Your task to perform on an android device: Go to calendar. Show me events next week Image 0: 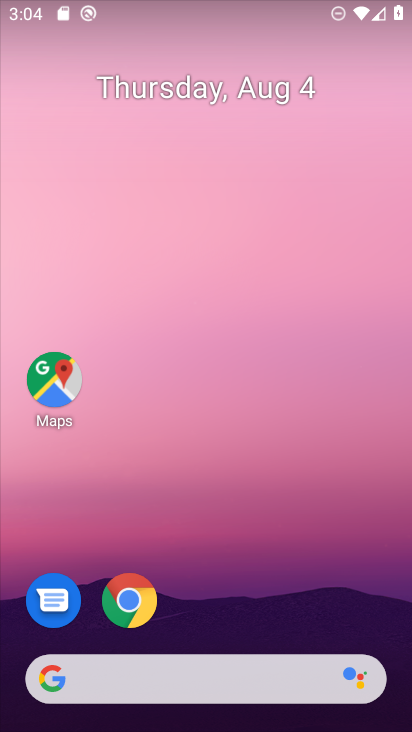
Step 0: drag from (128, 680) to (256, 107)
Your task to perform on an android device: Go to calendar. Show me events next week Image 1: 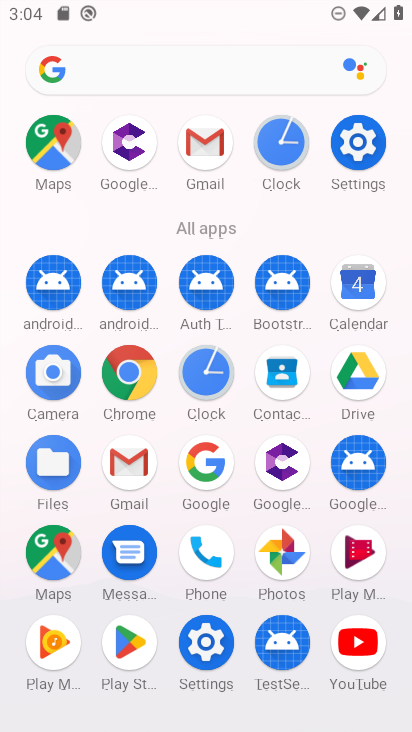
Step 1: click (352, 289)
Your task to perform on an android device: Go to calendar. Show me events next week Image 2: 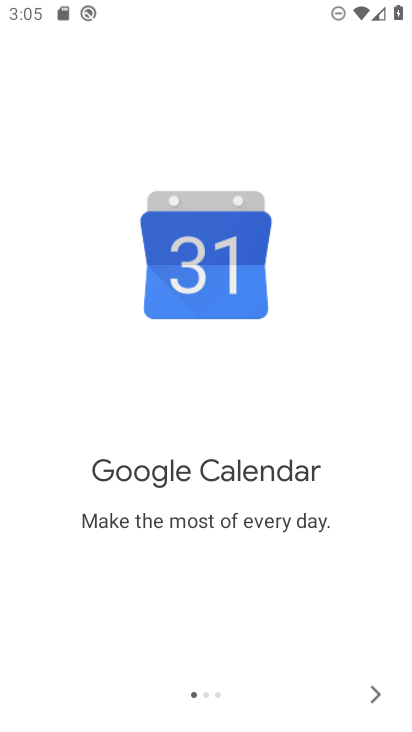
Step 2: click (375, 684)
Your task to perform on an android device: Go to calendar. Show me events next week Image 3: 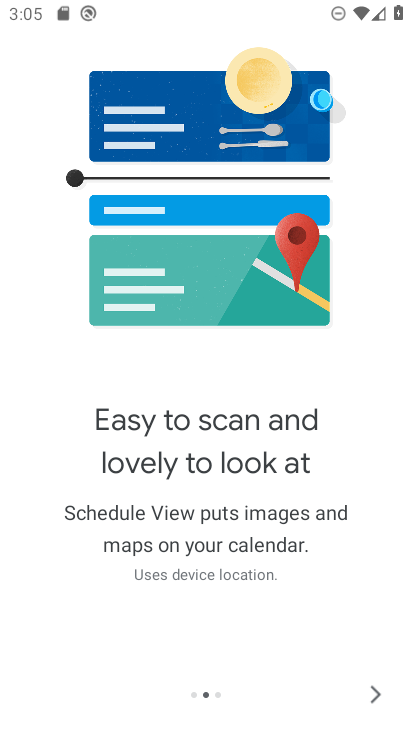
Step 3: click (375, 687)
Your task to perform on an android device: Go to calendar. Show me events next week Image 4: 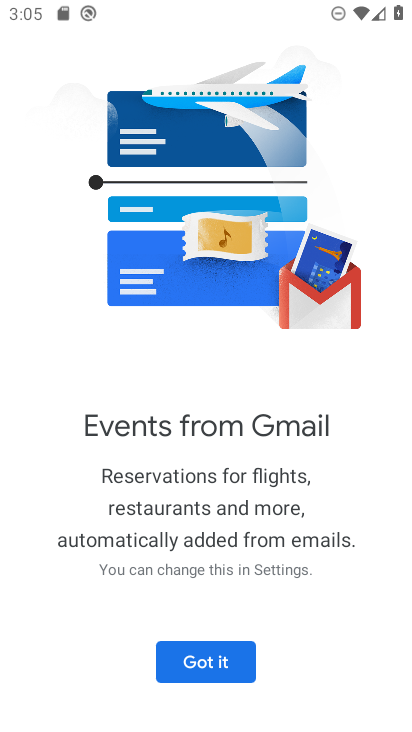
Step 4: click (226, 662)
Your task to perform on an android device: Go to calendar. Show me events next week Image 5: 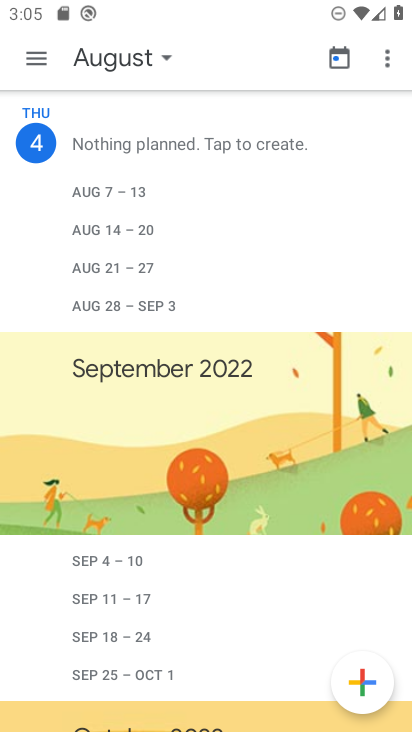
Step 5: click (99, 62)
Your task to perform on an android device: Go to calendar. Show me events next week Image 6: 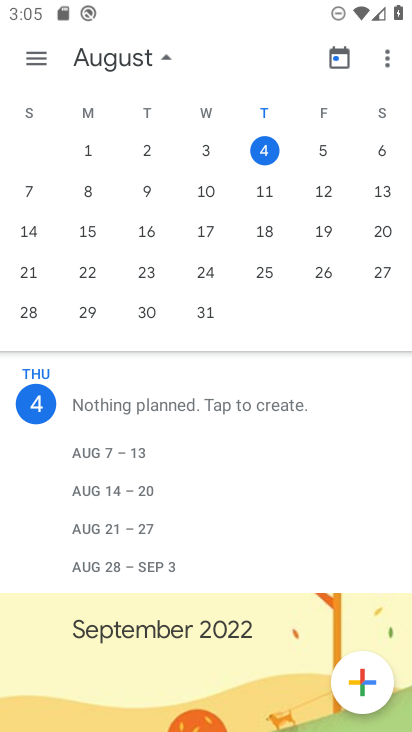
Step 6: click (28, 194)
Your task to perform on an android device: Go to calendar. Show me events next week Image 7: 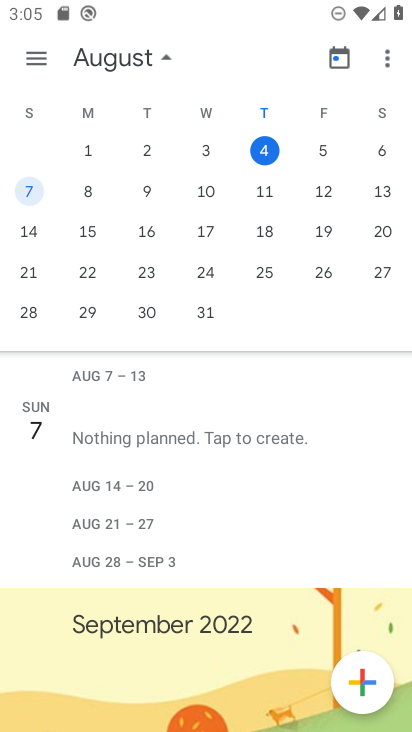
Step 7: click (44, 60)
Your task to perform on an android device: Go to calendar. Show me events next week Image 8: 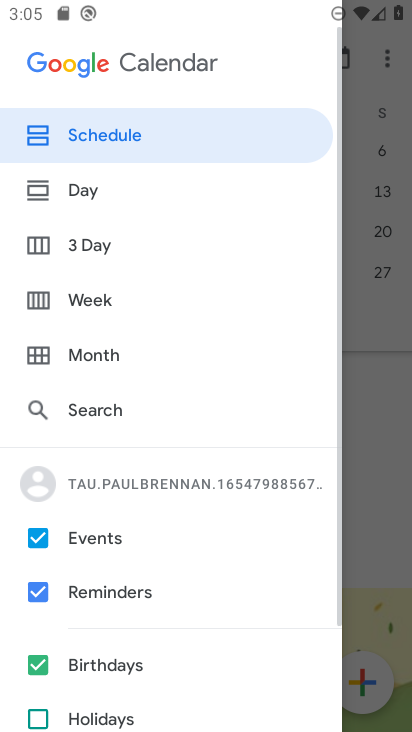
Step 8: click (87, 303)
Your task to perform on an android device: Go to calendar. Show me events next week Image 9: 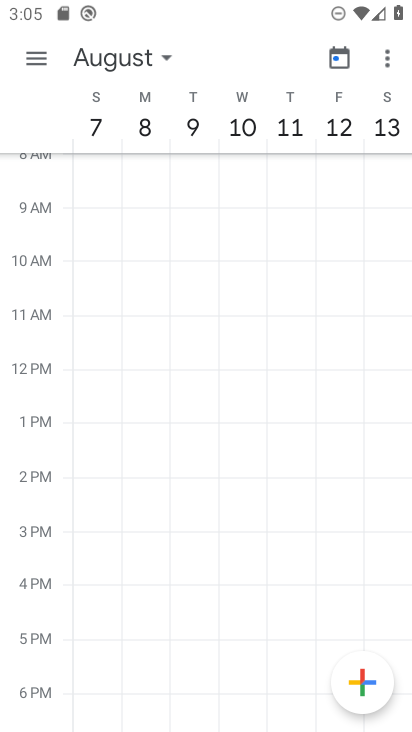
Step 9: click (39, 53)
Your task to perform on an android device: Go to calendar. Show me events next week Image 10: 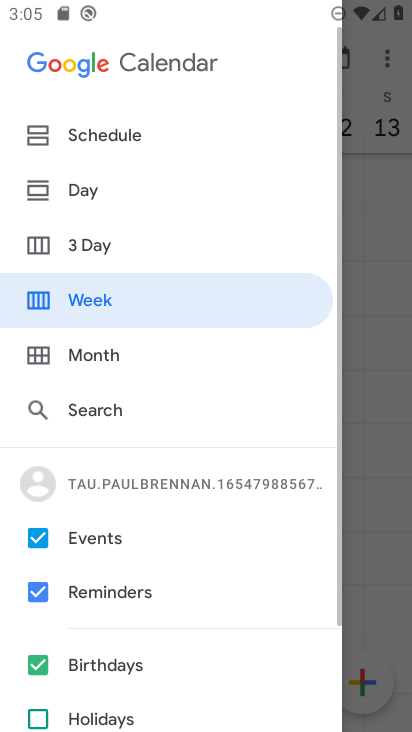
Step 10: click (103, 139)
Your task to perform on an android device: Go to calendar. Show me events next week Image 11: 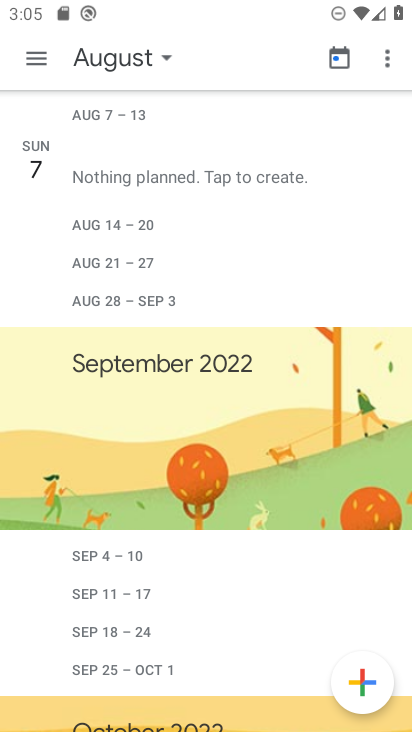
Step 11: task complete